Your task to perform on an android device: refresh tabs in the chrome app Image 0: 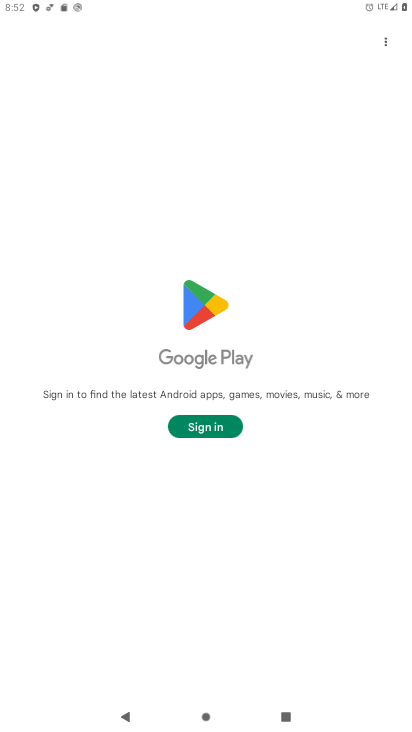
Step 0: press home button
Your task to perform on an android device: refresh tabs in the chrome app Image 1: 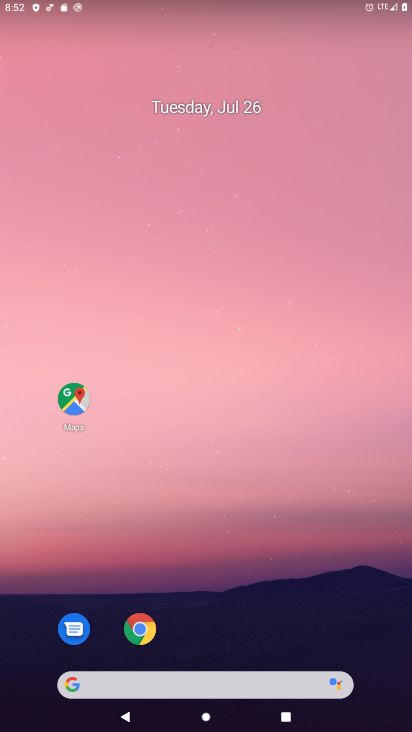
Step 1: drag from (176, 656) to (274, 0)
Your task to perform on an android device: refresh tabs in the chrome app Image 2: 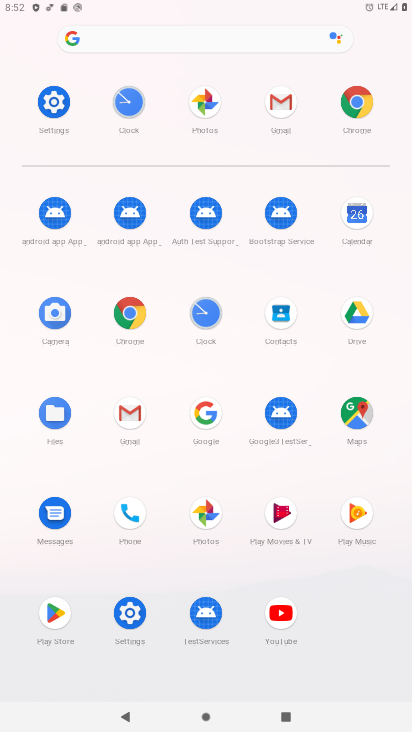
Step 2: click (362, 96)
Your task to perform on an android device: refresh tabs in the chrome app Image 3: 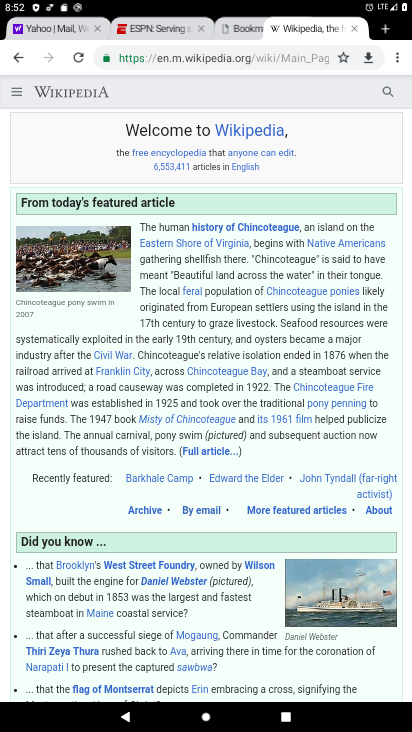
Step 3: click (77, 60)
Your task to perform on an android device: refresh tabs in the chrome app Image 4: 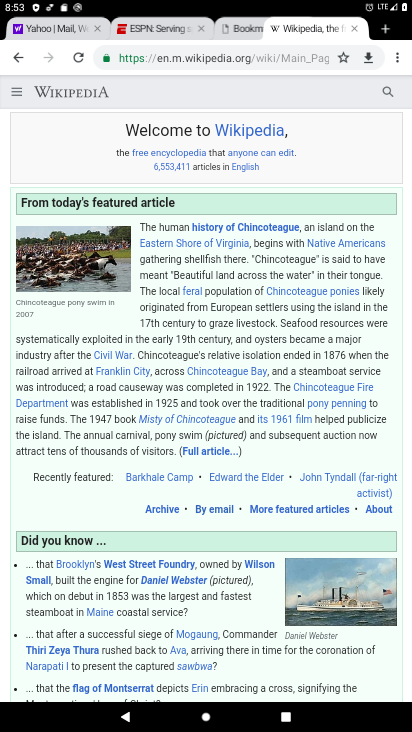
Step 4: task complete